Your task to perform on an android device: Open CNN.com Image 0: 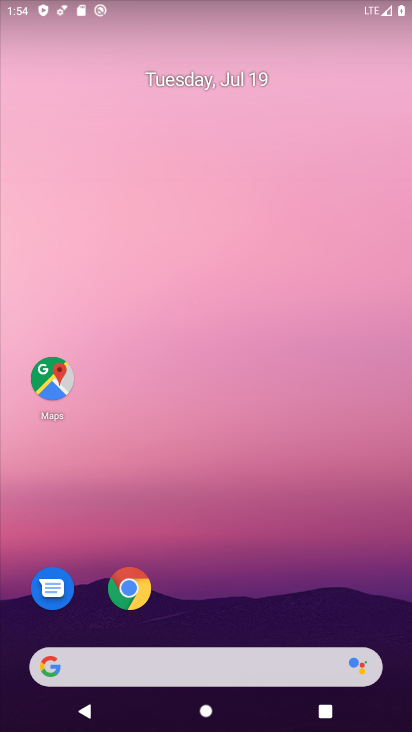
Step 0: click (134, 584)
Your task to perform on an android device: Open CNN.com Image 1: 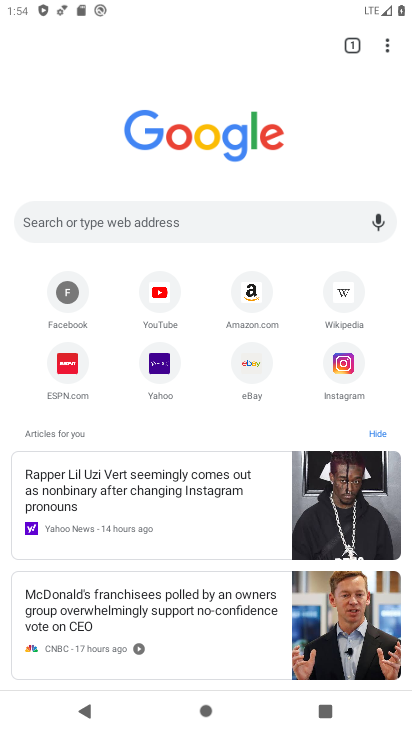
Step 1: click (141, 208)
Your task to perform on an android device: Open CNN.com Image 2: 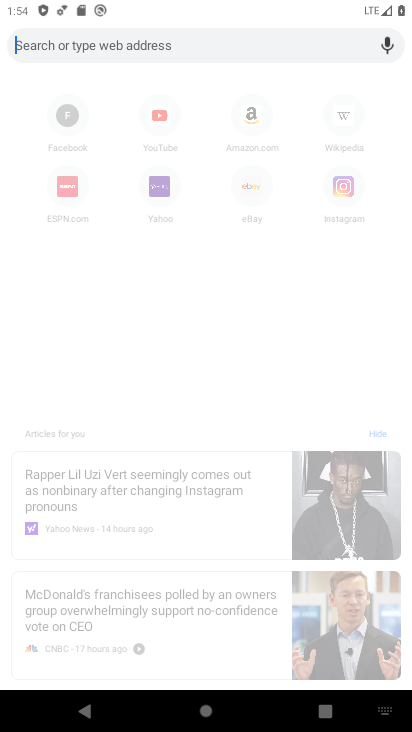
Step 2: type "cnn.com"
Your task to perform on an android device: Open CNN.com Image 3: 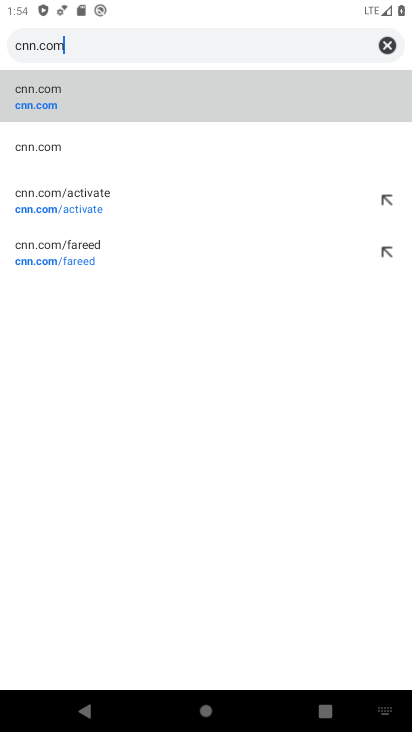
Step 3: click (49, 141)
Your task to perform on an android device: Open CNN.com Image 4: 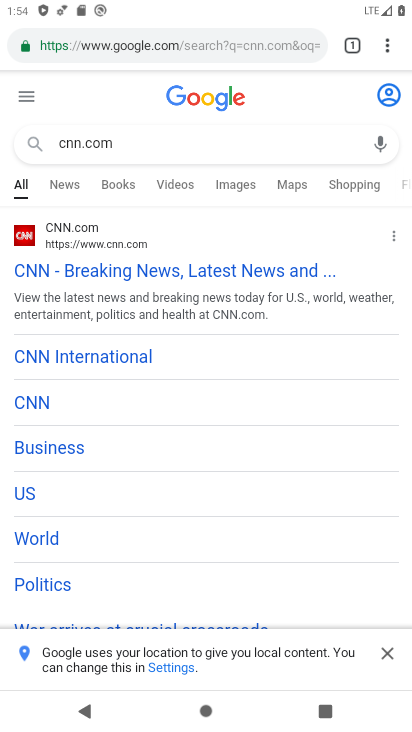
Step 4: task complete